Your task to perform on an android device: Open Google Chrome and click the shortcut for Amazon.com Image 0: 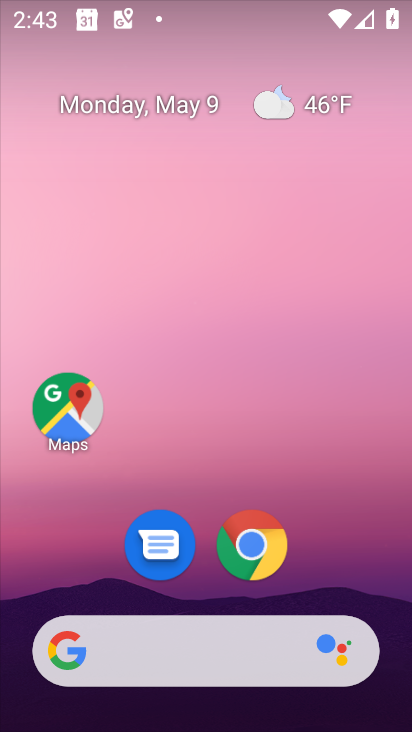
Step 0: click (244, 557)
Your task to perform on an android device: Open Google Chrome and click the shortcut for Amazon.com Image 1: 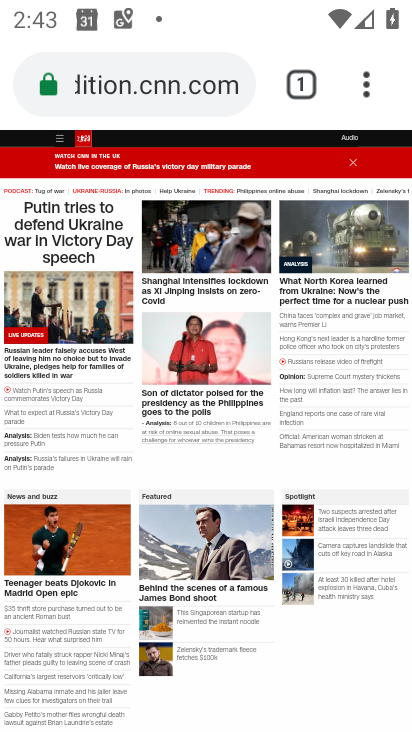
Step 1: click (372, 80)
Your task to perform on an android device: Open Google Chrome and click the shortcut for Amazon.com Image 2: 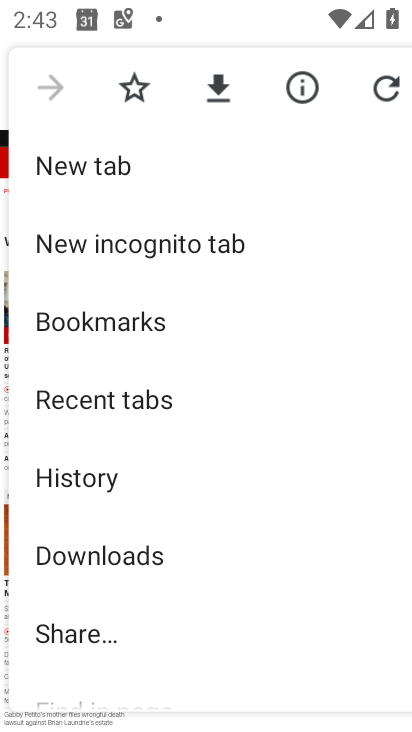
Step 2: press back button
Your task to perform on an android device: Open Google Chrome and click the shortcut for Amazon.com Image 3: 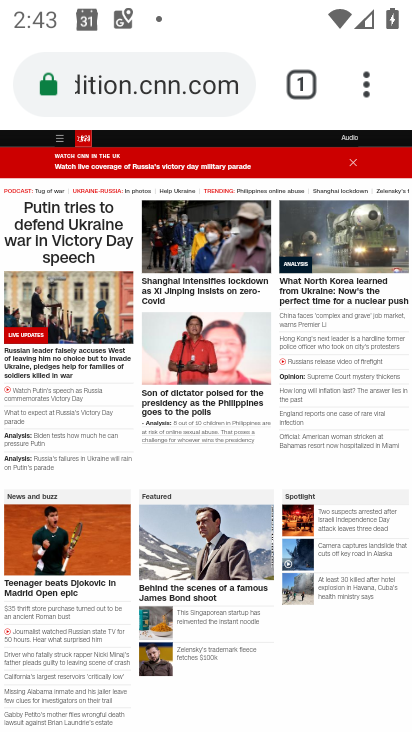
Step 3: click (315, 85)
Your task to perform on an android device: Open Google Chrome and click the shortcut for Amazon.com Image 4: 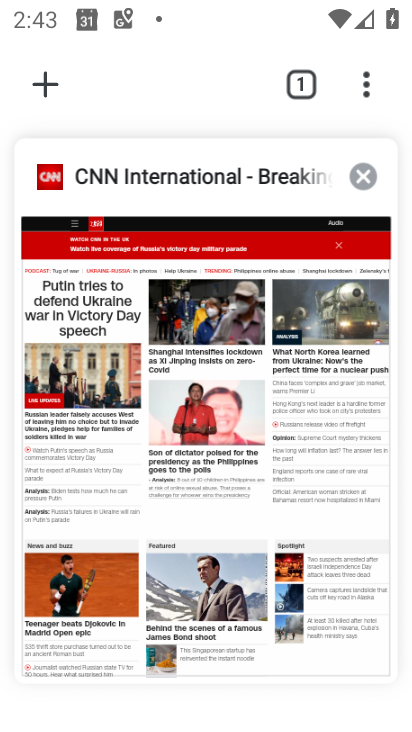
Step 4: click (55, 82)
Your task to perform on an android device: Open Google Chrome and click the shortcut for Amazon.com Image 5: 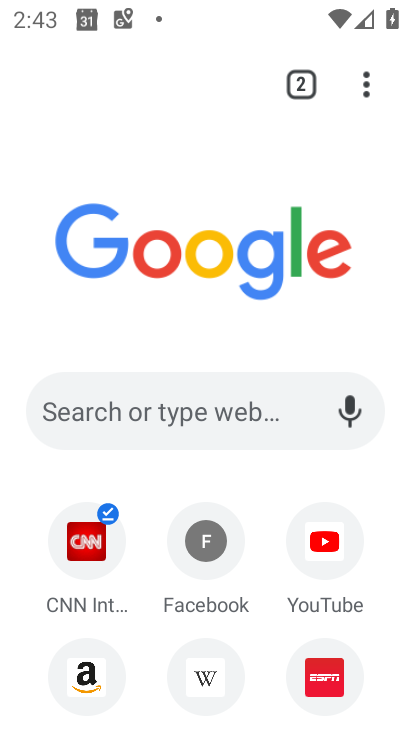
Step 5: drag from (268, 612) to (274, 413)
Your task to perform on an android device: Open Google Chrome and click the shortcut for Amazon.com Image 6: 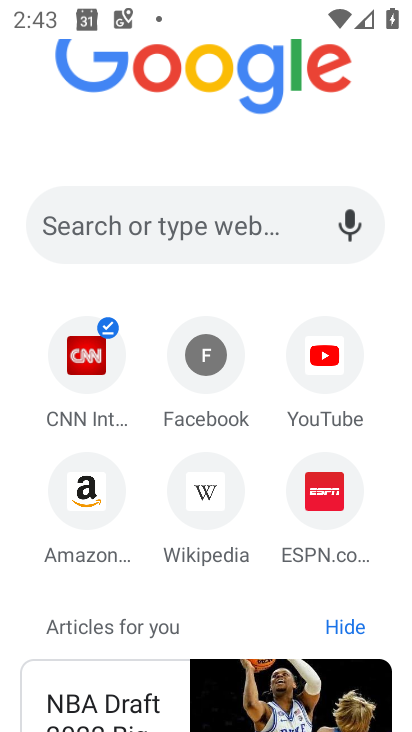
Step 6: click (90, 491)
Your task to perform on an android device: Open Google Chrome and click the shortcut for Amazon.com Image 7: 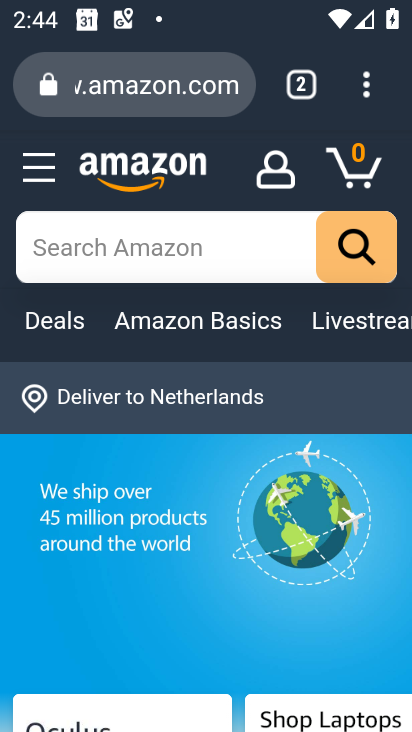
Step 7: task complete